Your task to perform on an android device: Open Wikipedia Image 0: 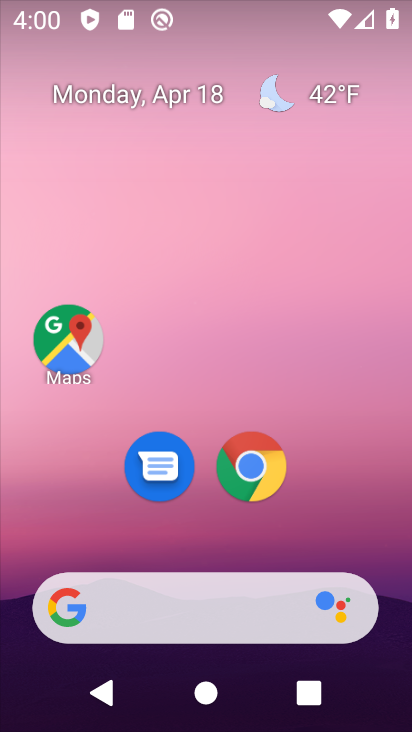
Step 0: click (248, 459)
Your task to perform on an android device: Open Wikipedia Image 1: 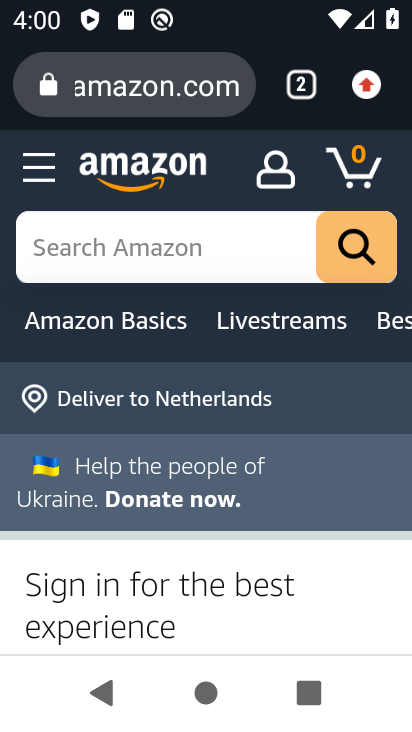
Step 1: click (361, 79)
Your task to perform on an android device: Open Wikipedia Image 2: 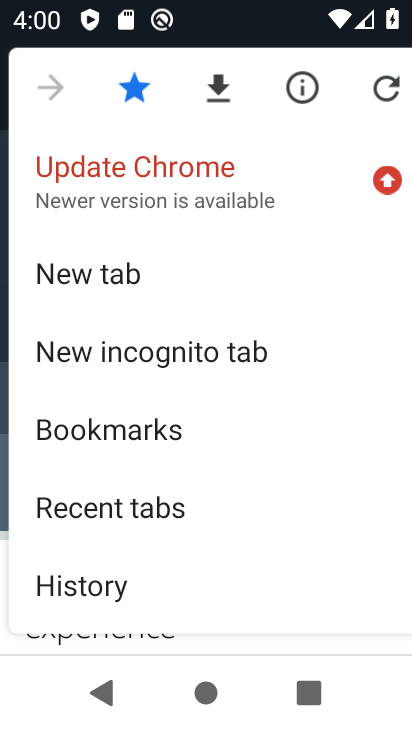
Step 2: click (72, 269)
Your task to perform on an android device: Open Wikipedia Image 3: 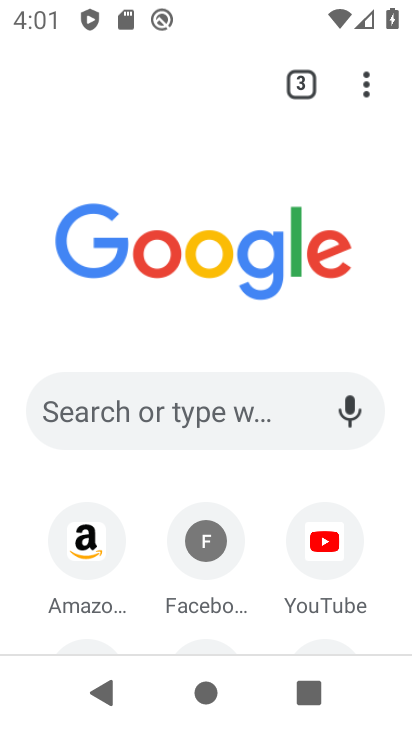
Step 3: drag from (280, 474) to (355, 39)
Your task to perform on an android device: Open Wikipedia Image 4: 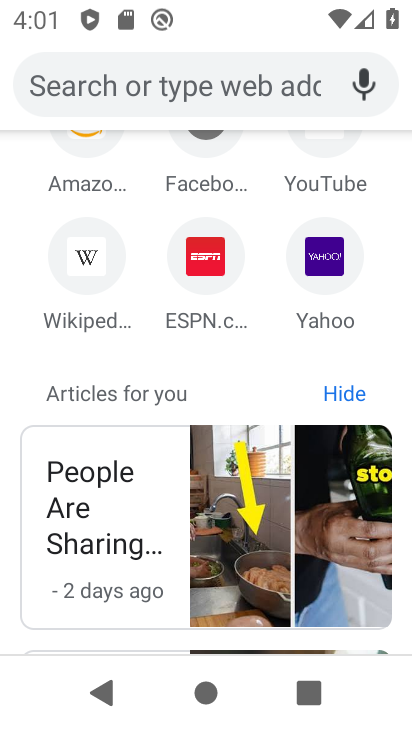
Step 4: click (87, 255)
Your task to perform on an android device: Open Wikipedia Image 5: 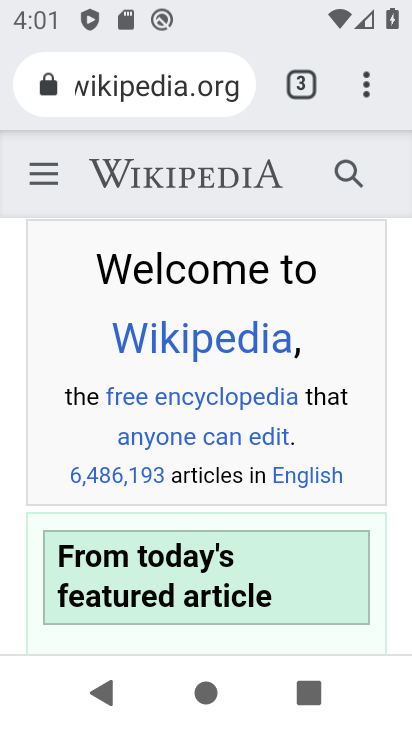
Step 5: task complete